Your task to perform on an android device: turn on showing notifications on the lock screen Image 0: 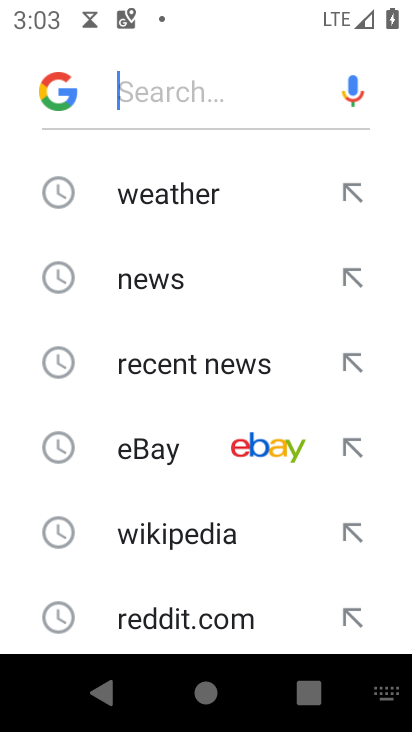
Step 0: press home button
Your task to perform on an android device: turn on showing notifications on the lock screen Image 1: 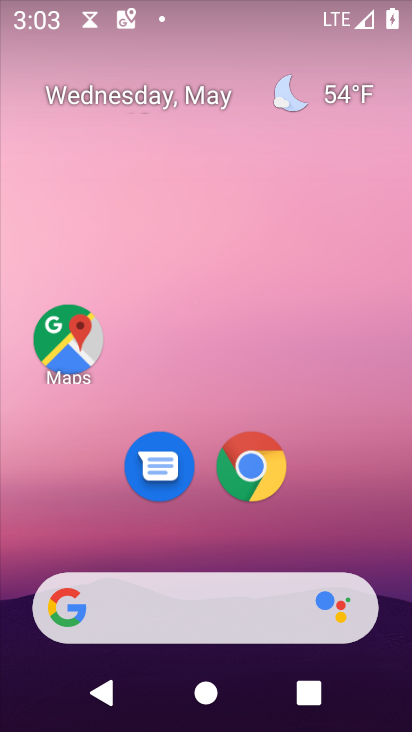
Step 1: drag from (372, 534) to (289, 236)
Your task to perform on an android device: turn on showing notifications on the lock screen Image 2: 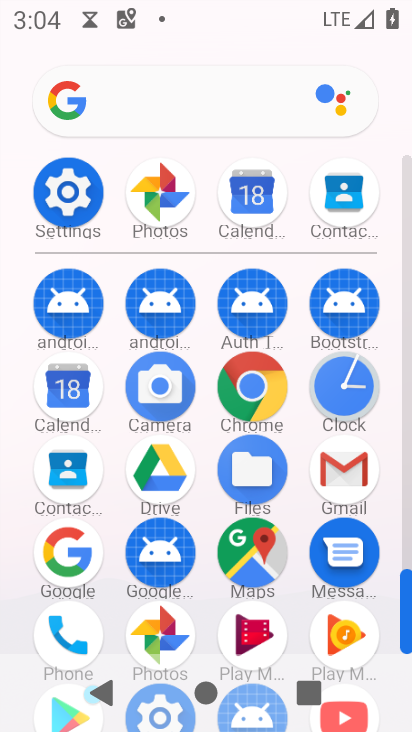
Step 2: click (78, 194)
Your task to perform on an android device: turn on showing notifications on the lock screen Image 3: 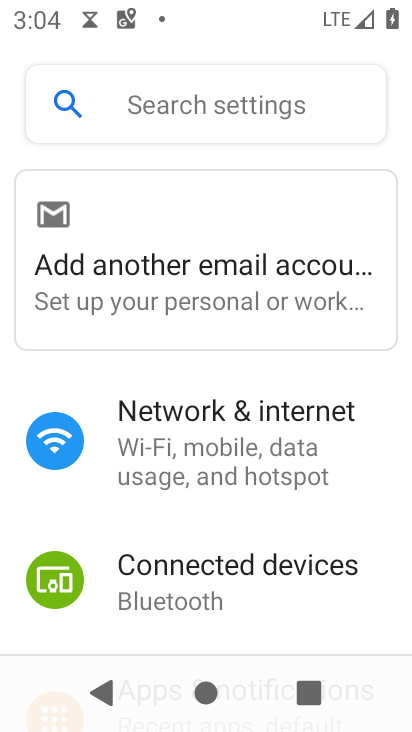
Step 3: drag from (196, 534) to (189, 211)
Your task to perform on an android device: turn on showing notifications on the lock screen Image 4: 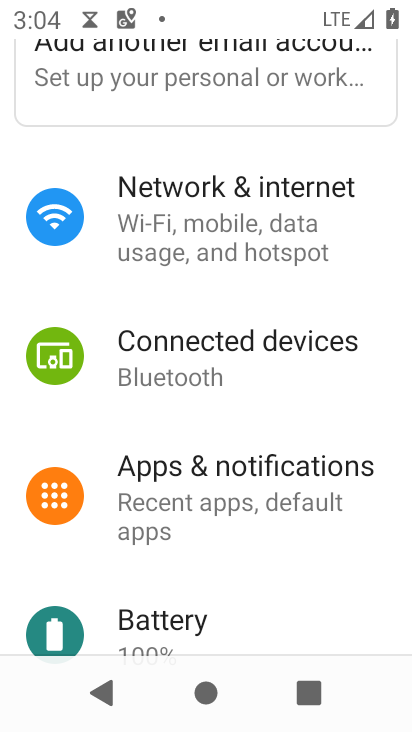
Step 4: click (236, 476)
Your task to perform on an android device: turn on showing notifications on the lock screen Image 5: 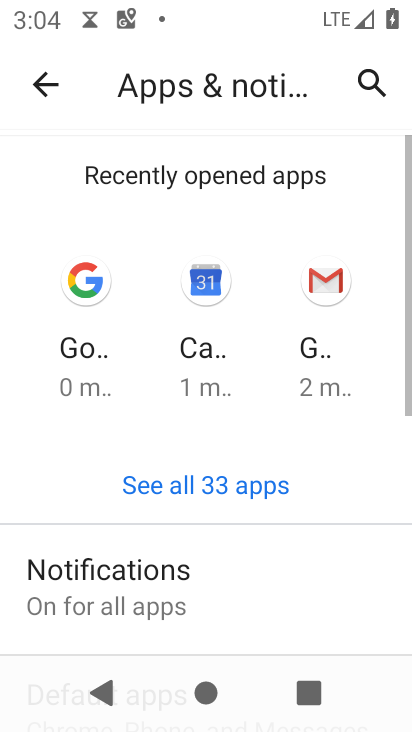
Step 5: click (261, 594)
Your task to perform on an android device: turn on showing notifications on the lock screen Image 6: 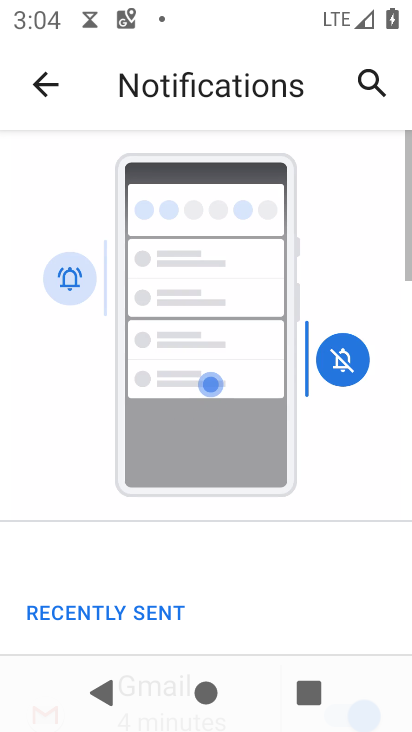
Step 6: drag from (261, 594) to (220, 194)
Your task to perform on an android device: turn on showing notifications on the lock screen Image 7: 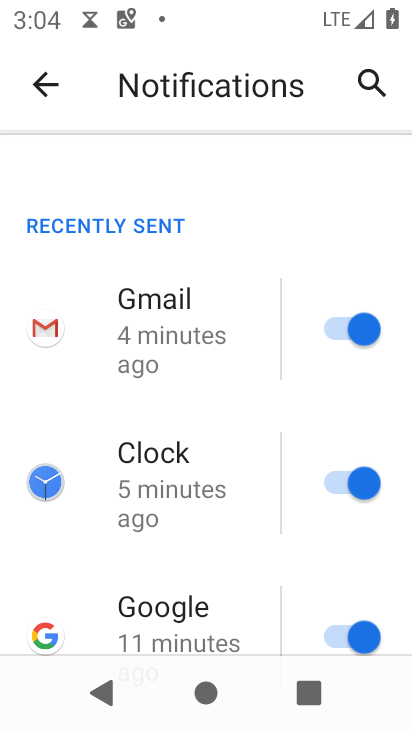
Step 7: drag from (282, 614) to (247, 225)
Your task to perform on an android device: turn on showing notifications on the lock screen Image 8: 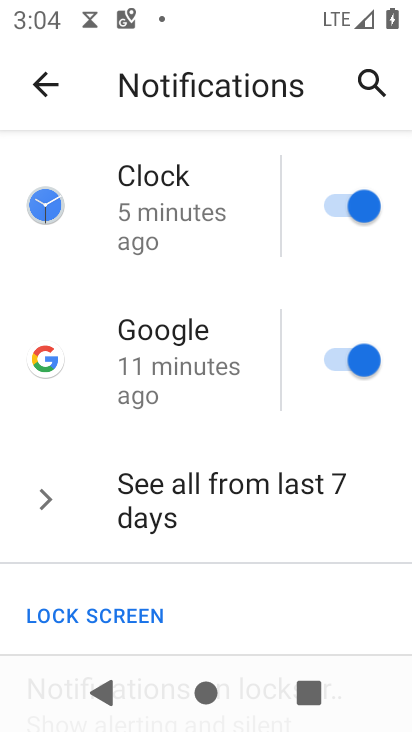
Step 8: drag from (282, 561) to (221, 186)
Your task to perform on an android device: turn on showing notifications on the lock screen Image 9: 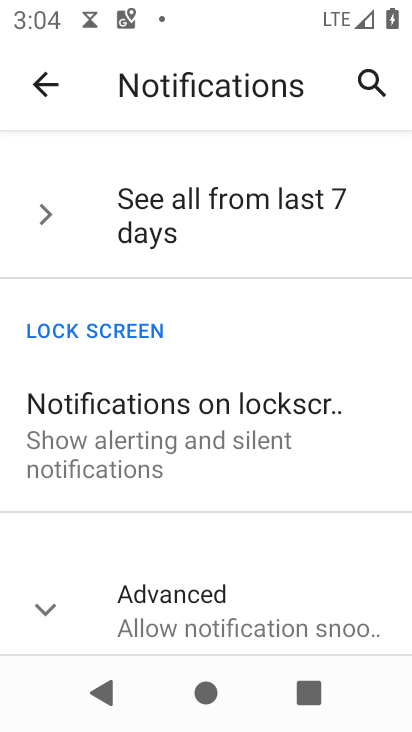
Step 9: click (234, 405)
Your task to perform on an android device: turn on showing notifications on the lock screen Image 10: 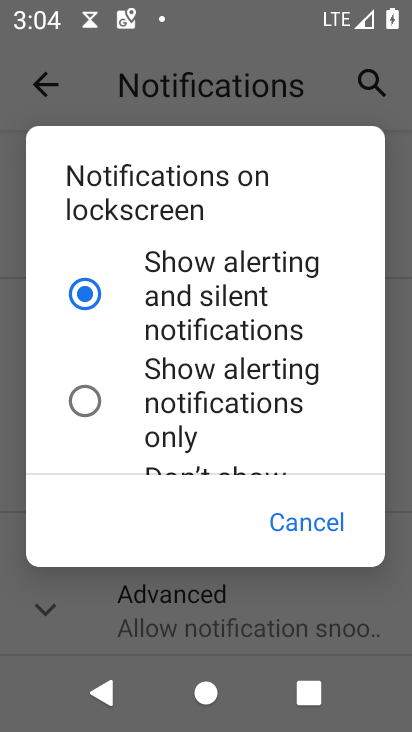
Step 10: task complete